Your task to perform on an android device: visit the assistant section in the google photos Image 0: 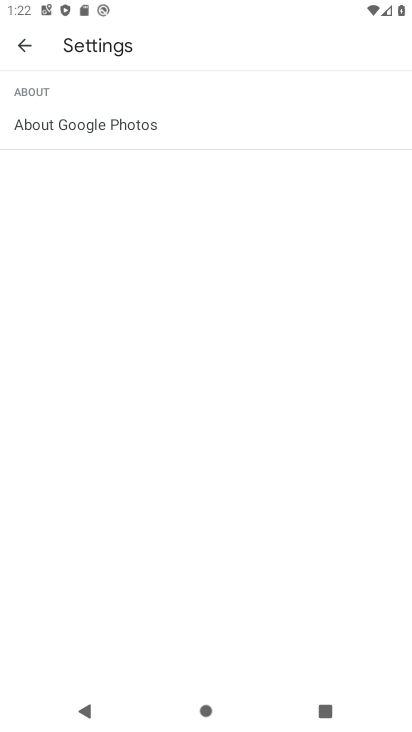
Step 0: press home button
Your task to perform on an android device: visit the assistant section in the google photos Image 1: 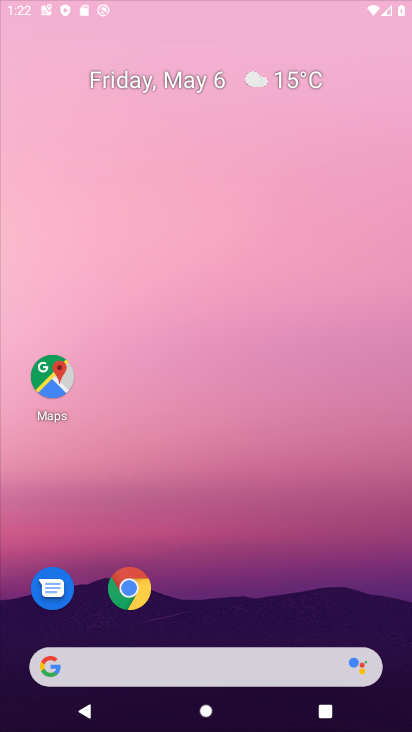
Step 1: drag from (196, 595) to (252, 74)
Your task to perform on an android device: visit the assistant section in the google photos Image 2: 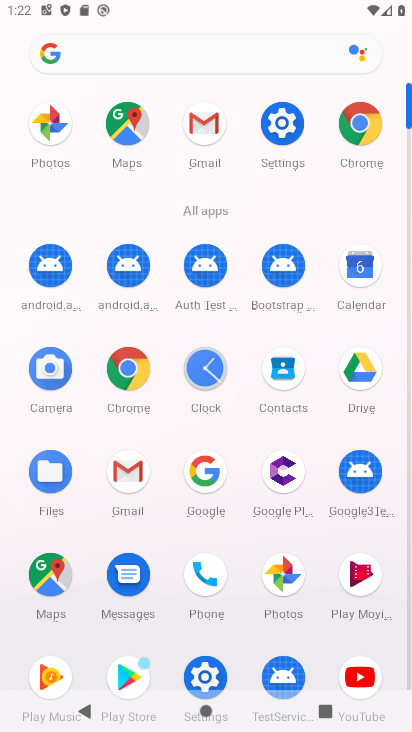
Step 2: click (277, 586)
Your task to perform on an android device: visit the assistant section in the google photos Image 3: 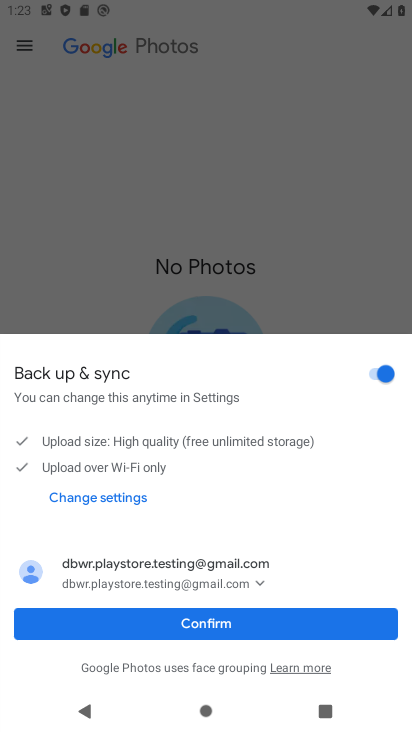
Step 3: click (183, 618)
Your task to perform on an android device: visit the assistant section in the google photos Image 4: 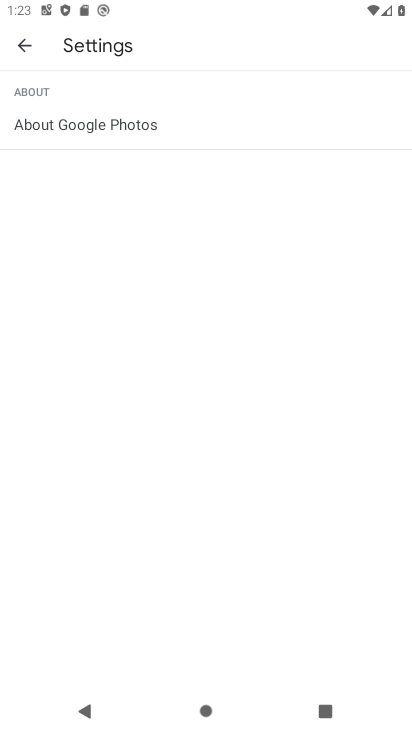
Step 4: press back button
Your task to perform on an android device: visit the assistant section in the google photos Image 5: 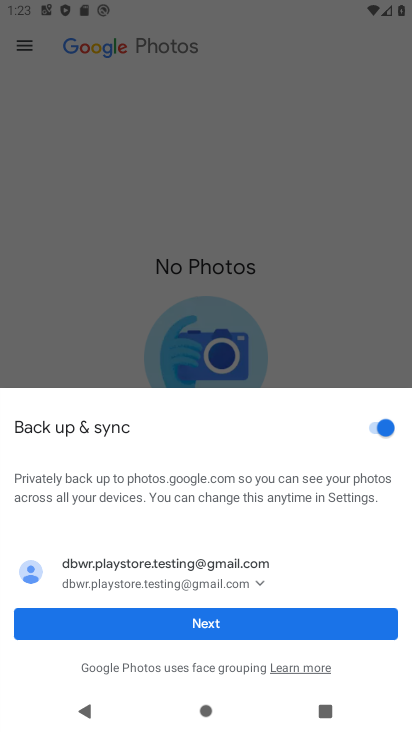
Step 5: click (214, 624)
Your task to perform on an android device: visit the assistant section in the google photos Image 6: 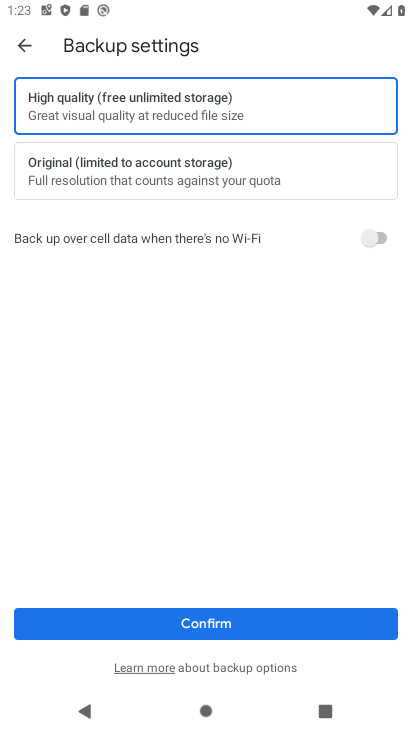
Step 6: click (219, 625)
Your task to perform on an android device: visit the assistant section in the google photos Image 7: 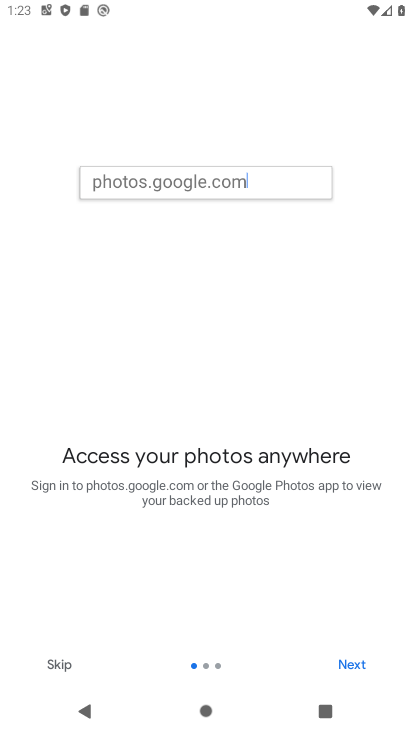
Step 7: click (69, 662)
Your task to perform on an android device: visit the assistant section in the google photos Image 8: 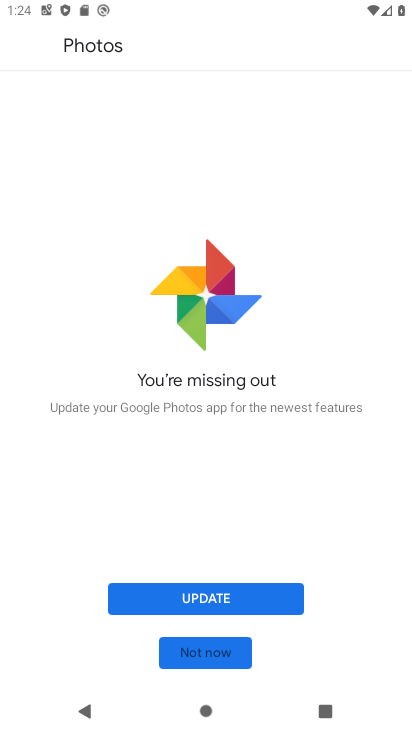
Step 8: click (199, 639)
Your task to perform on an android device: visit the assistant section in the google photos Image 9: 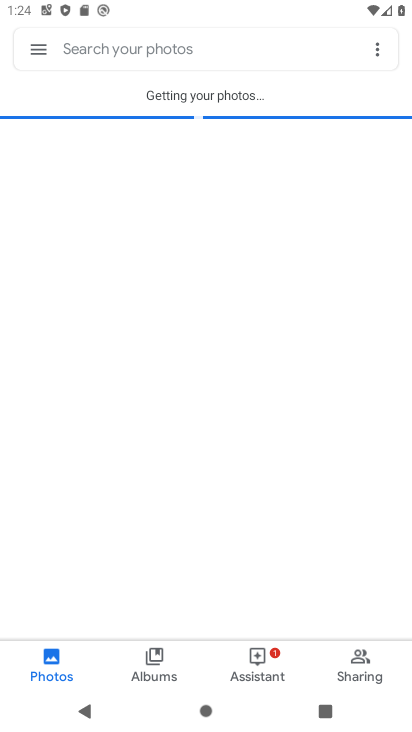
Step 9: click (148, 664)
Your task to perform on an android device: visit the assistant section in the google photos Image 10: 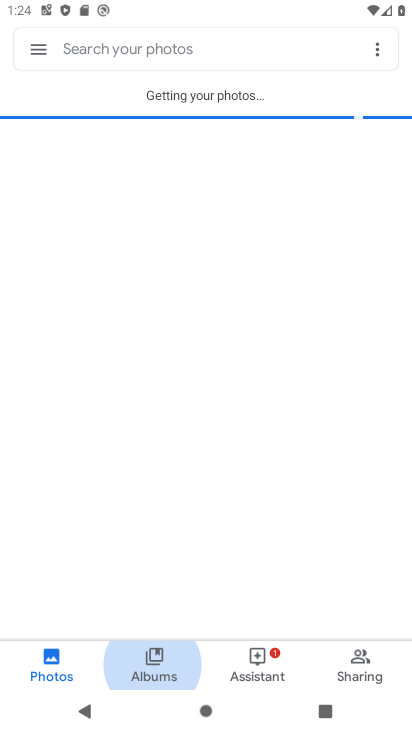
Step 10: click (272, 655)
Your task to perform on an android device: visit the assistant section in the google photos Image 11: 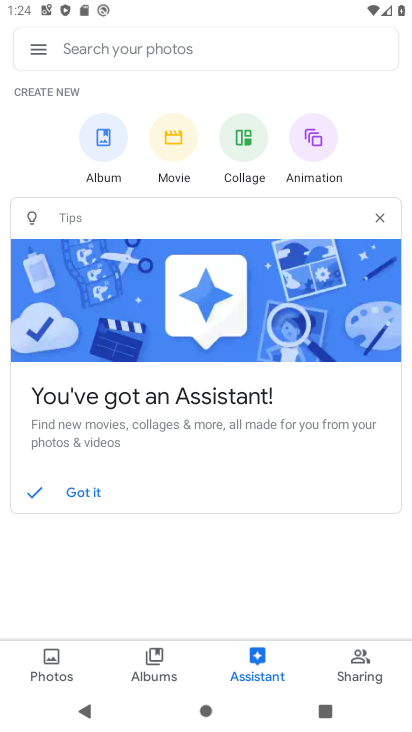
Step 11: click (267, 658)
Your task to perform on an android device: visit the assistant section in the google photos Image 12: 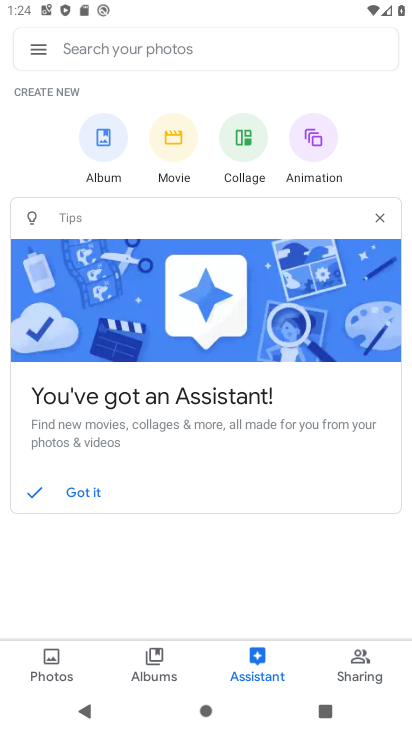
Step 12: task complete